Your task to perform on an android device: delete a single message in the gmail app Image 0: 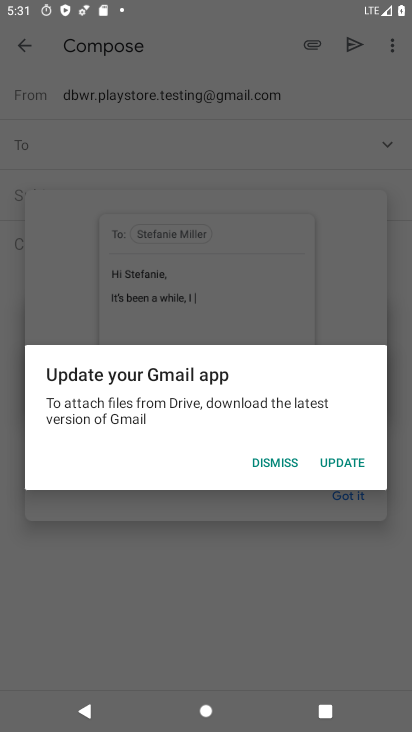
Step 0: press home button
Your task to perform on an android device: delete a single message in the gmail app Image 1: 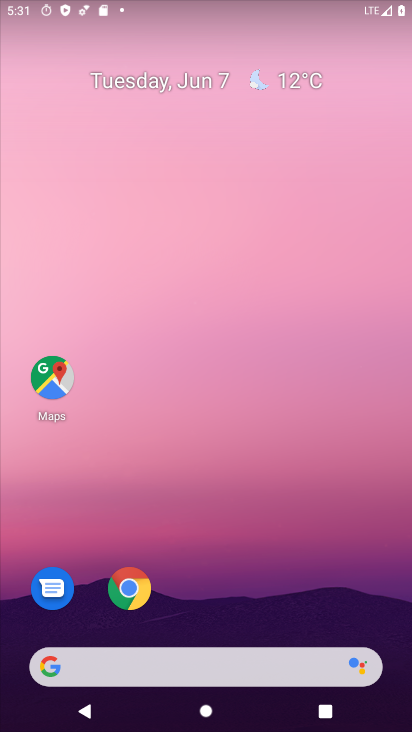
Step 1: drag from (222, 603) to (309, 9)
Your task to perform on an android device: delete a single message in the gmail app Image 2: 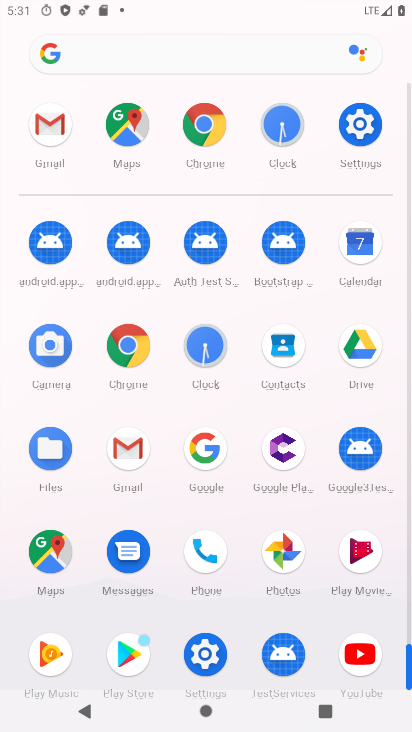
Step 2: click (129, 472)
Your task to perform on an android device: delete a single message in the gmail app Image 3: 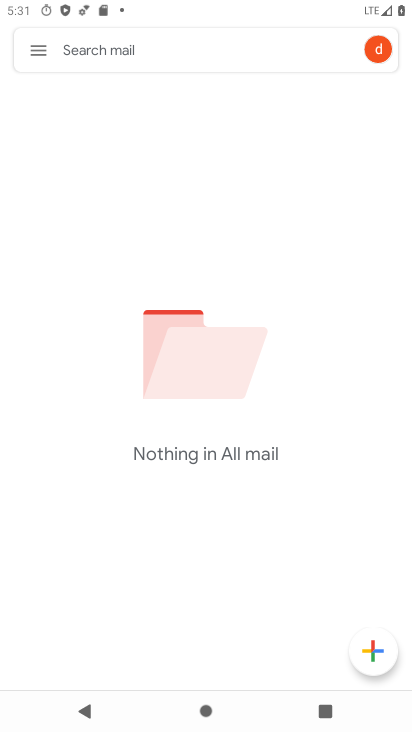
Step 3: click (38, 46)
Your task to perform on an android device: delete a single message in the gmail app Image 4: 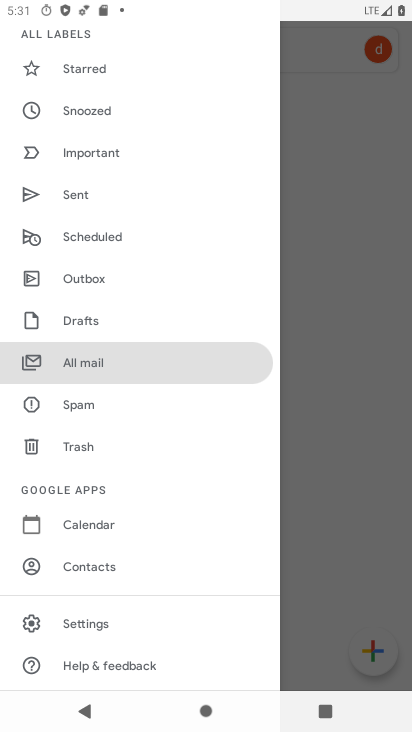
Step 4: drag from (100, 615) to (148, 89)
Your task to perform on an android device: delete a single message in the gmail app Image 5: 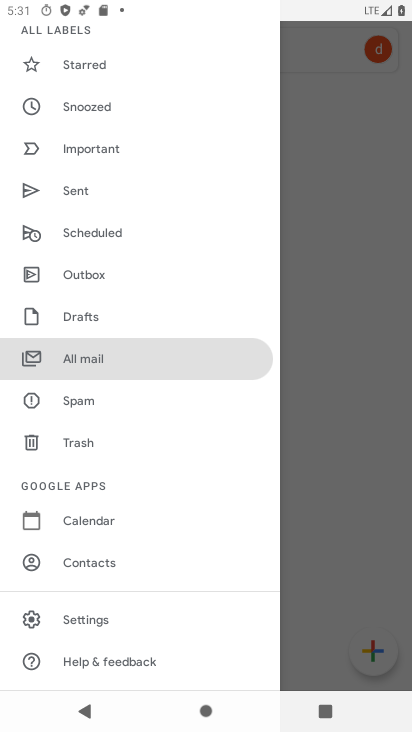
Step 5: click (67, 355)
Your task to perform on an android device: delete a single message in the gmail app Image 6: 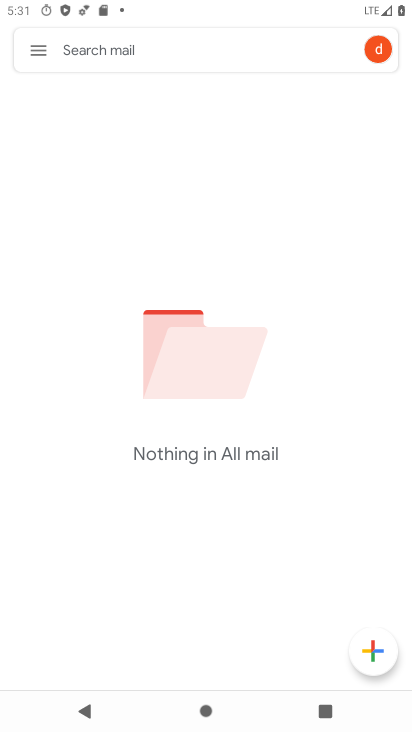
Step 6: task complete